Your task to perform on an android device: Open Google Chrome and click the shortcut for Amazon.com Image 0: 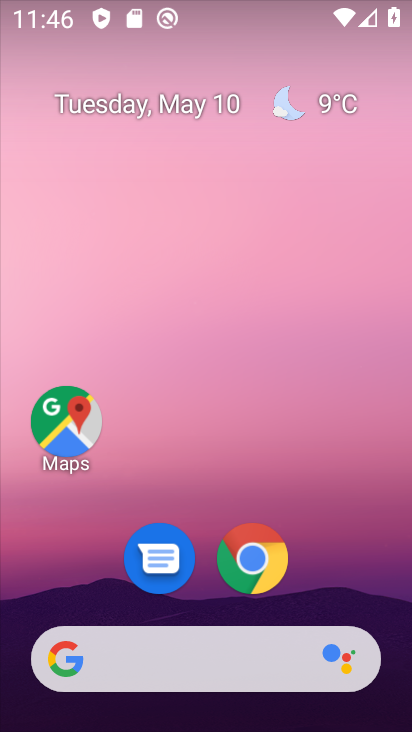
Step 0: drag from (369, 579) to (368, 166)
Your task to perform on an android device: Open Google Chrome and click the shortcut for Amazon.com Image 1: 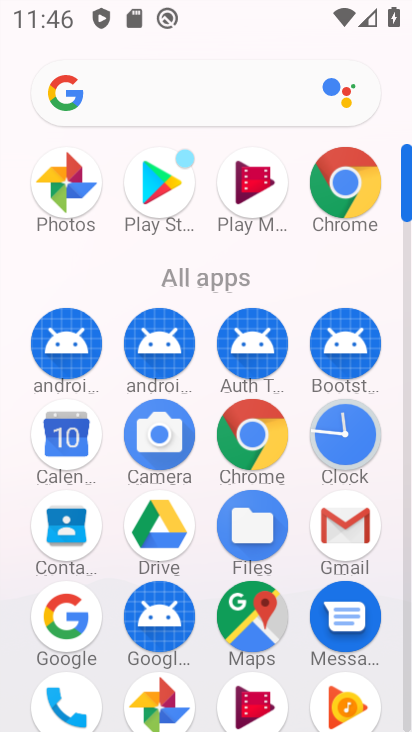
Step 1: click (270, 431)
Your task to perform on an android device: Open Google Chrome and click the shortcut for Amazon.com Image 2: 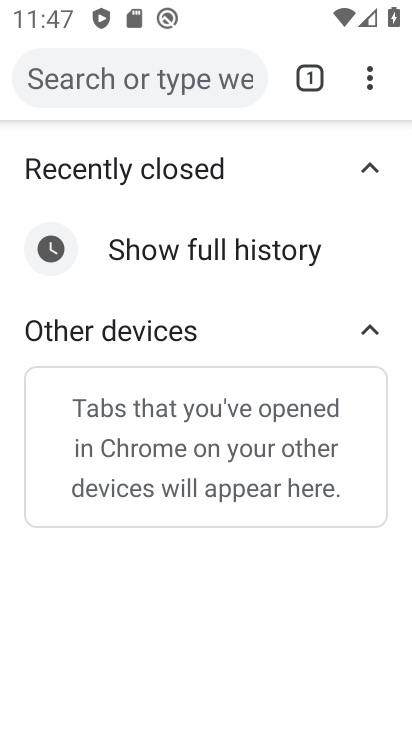
Step 2: click (322, 78)
Your task to perform on an android device: Open Google Chrome and click the shortcut for Amazon.com Image 3: 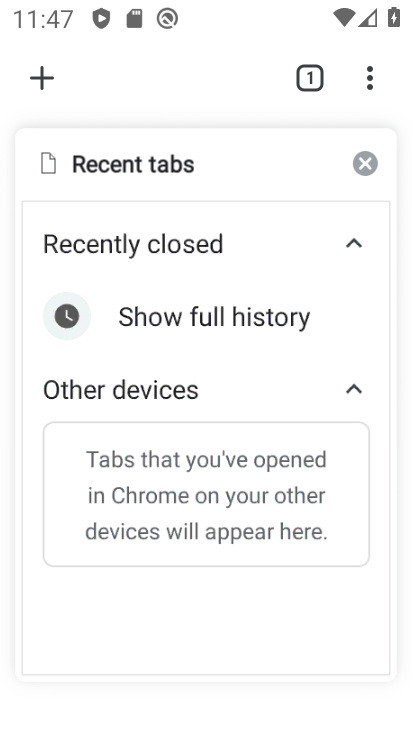
Step 3: click (43, 78)
Your task to perform on an android device: Open Google Chrome and click the shortcut for Amazon.com Image 4: 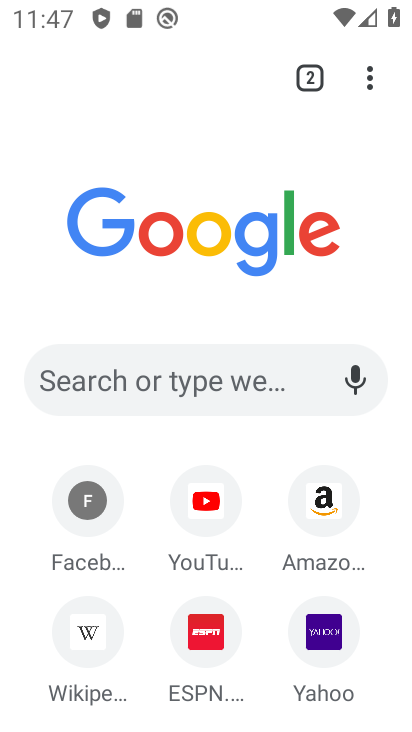
Step 4: click (314, 504)
Your task to perform on an android device: Open Google Chrome and click the shortcut for Amazon.com Image 5: 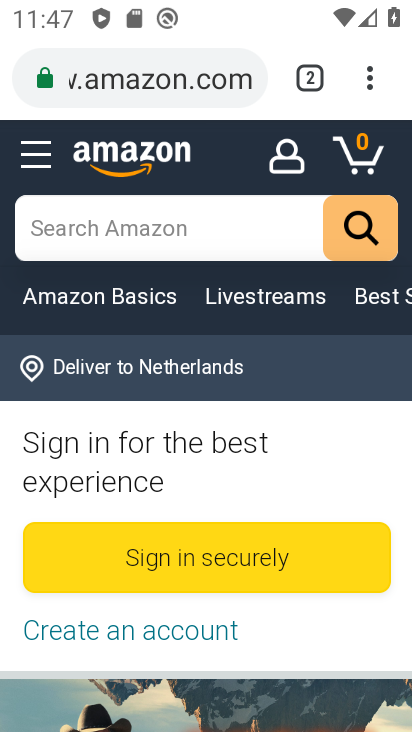
Step 5: task complete